Your task to perform on an android device: turn on translation in the chrome app Image 0: 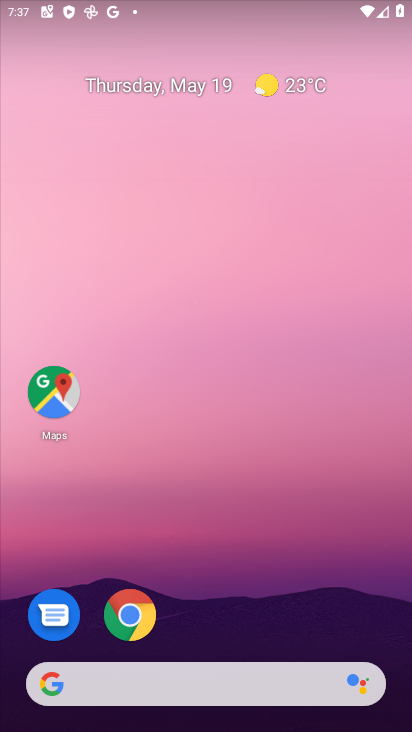
Step 0: drag from (361, 630) to (243, 104)
Your task to perform on an android device: turn on translation in the chrome app Image 1: 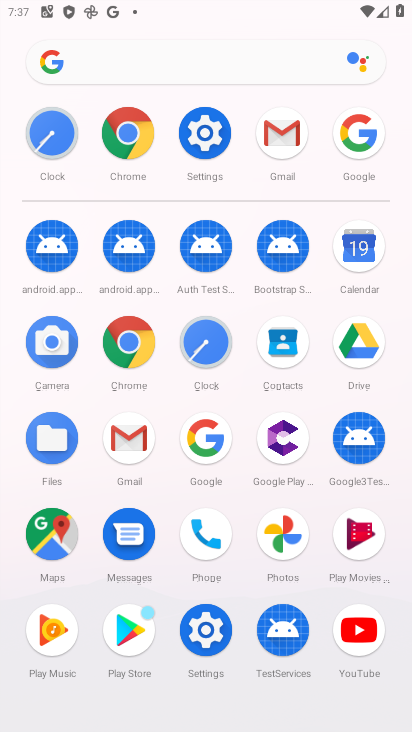
Step 1: click (126, 148)
Your task to perform on an android device: turn on translation in the chrome app Image 2: 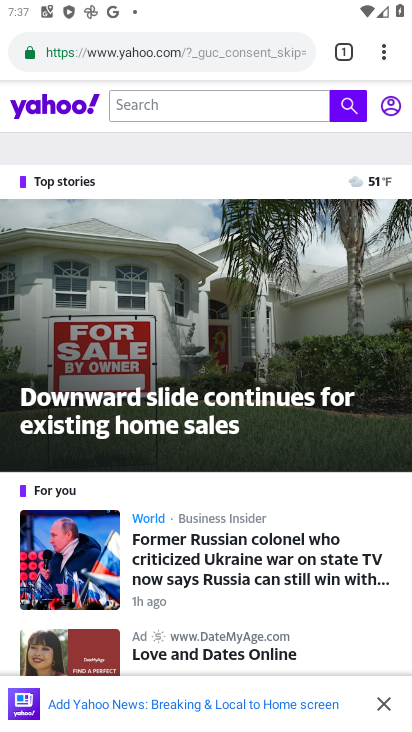
Step 2: press back button
Your task to perform on an android device: turn on translation in the chrome app Image 3: 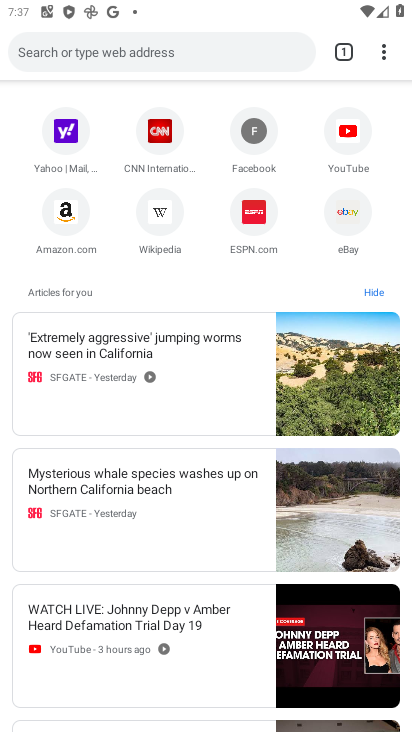
Step 3: click (386, 56)
Your task to perform on an android device: turn on translation in the chrome app Image 4: 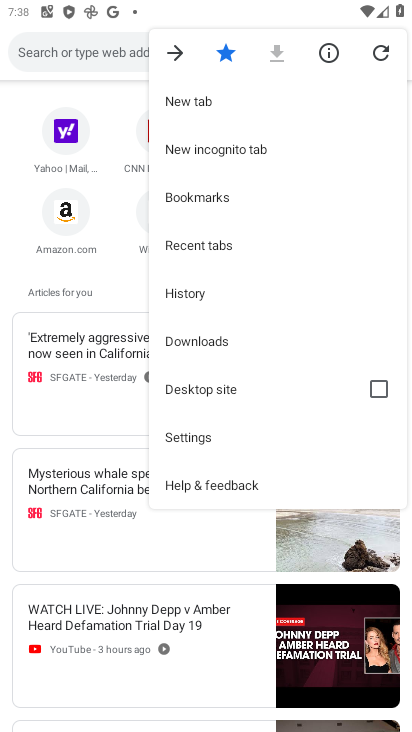
Step 4: click (200, 442)
Your task to perform on an android device: turn on translation in the chrome app Image 5: 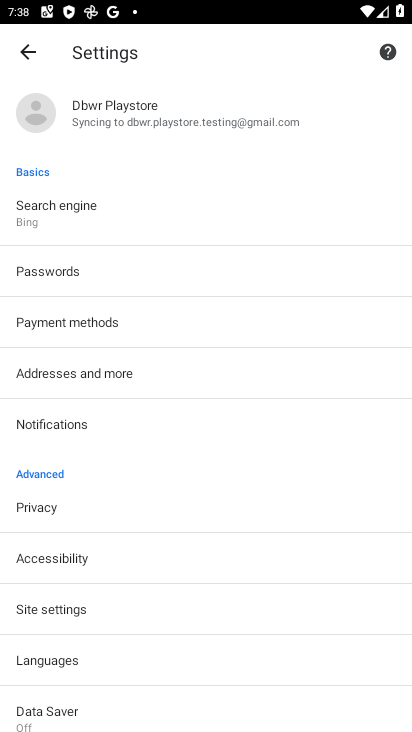
Step 5: click (118, 671)
Your task to perform on an android device: turn on translation in the chrome app Image 6: 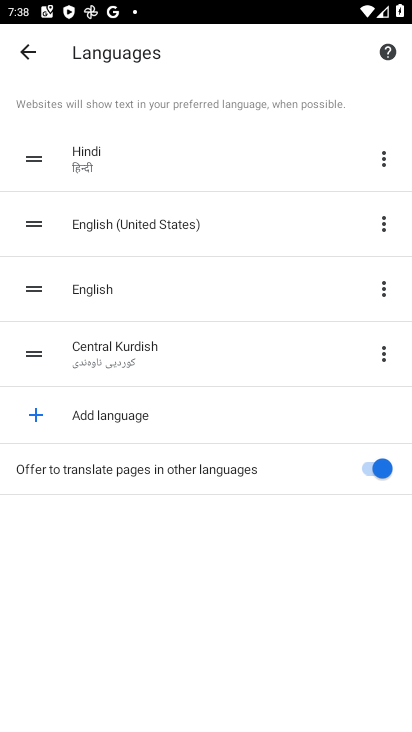
Step 6: task complete